Your task to perform on an android device: turn off sleep mode Image 0: 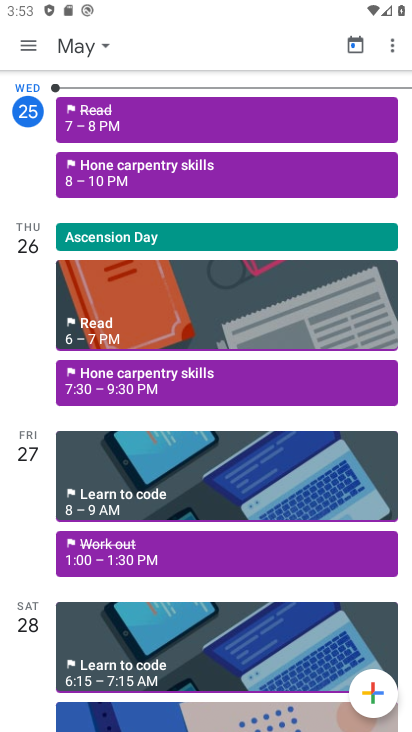
Step 0: drag from (161, 273) to (150, 196)
Your task to perform on an android device: turn off sleep mode Image 1: 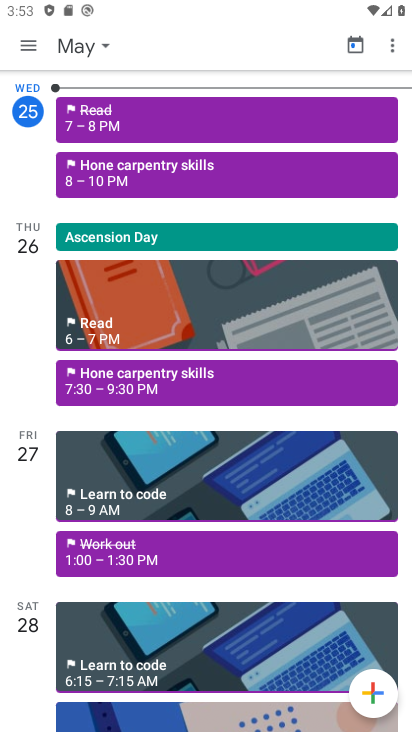
Step 1: press back button
Your task to perform on an android device: turn off sleep mode Image 2: 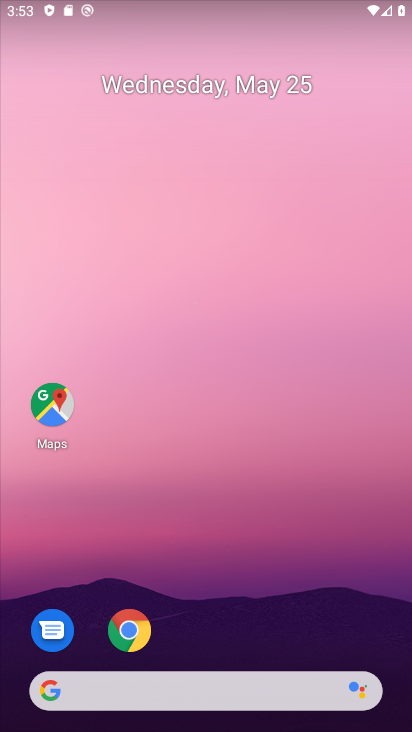
Step 2: drag from (262, 623) to (183, 114)
Your task to perform on an android device: turn off sleep mode Image 3: 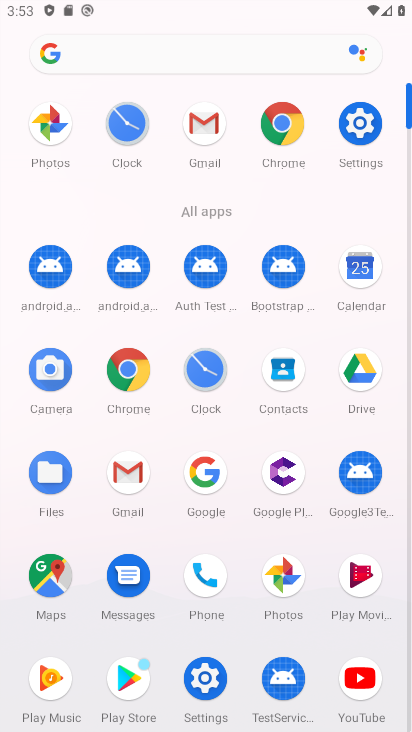
Step 3: click (193, 678)
Your task to perform on an android device: turn off sleep mode Image 4: 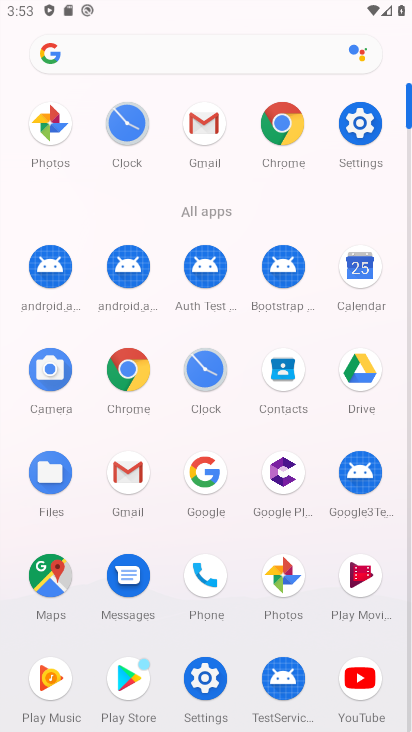
Step 4: click (193, 678)
Your task to perform on an android device: turn off sleep mode Image 5: 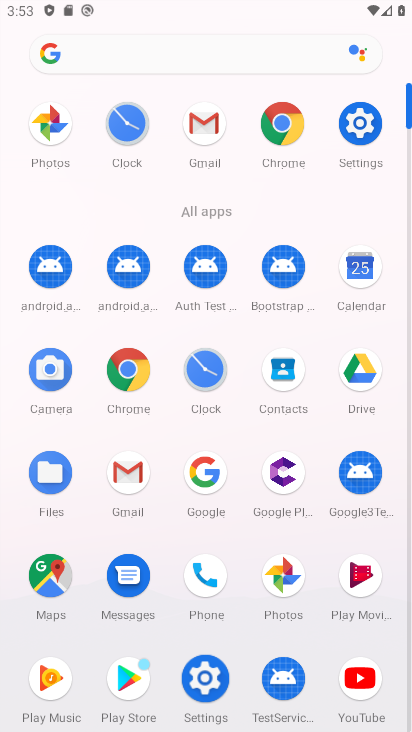
Step 5: click (194, 679)
Your task to perform on an android device: turn off sleep mode Image 6: 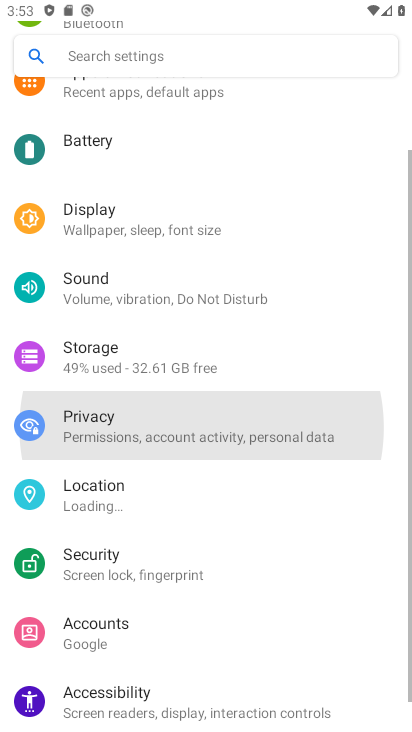
Step 6: click (202, 681)
Your task to perform on an android device: turn off sleep mode Image 7: 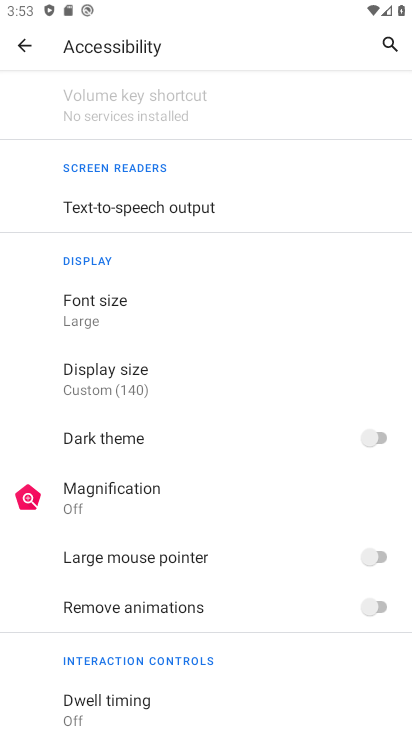
Step 7: click (24, 33)
Your task to perform on an android device: turn off sleep mode Image 8: 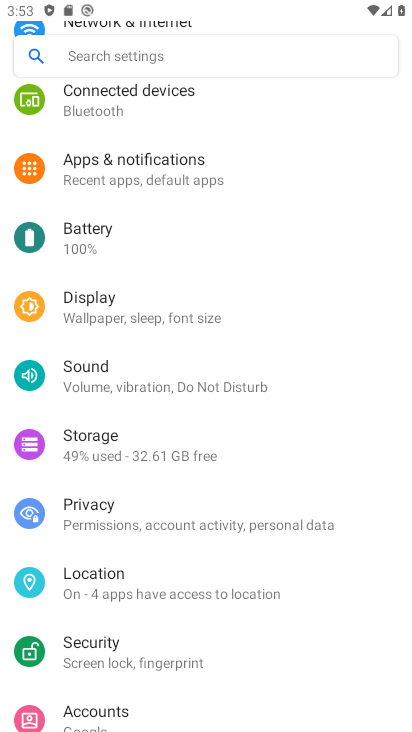
Step 8: click (89, 308)
Your task to perform on an android device: turn off sleep mode Image 9: 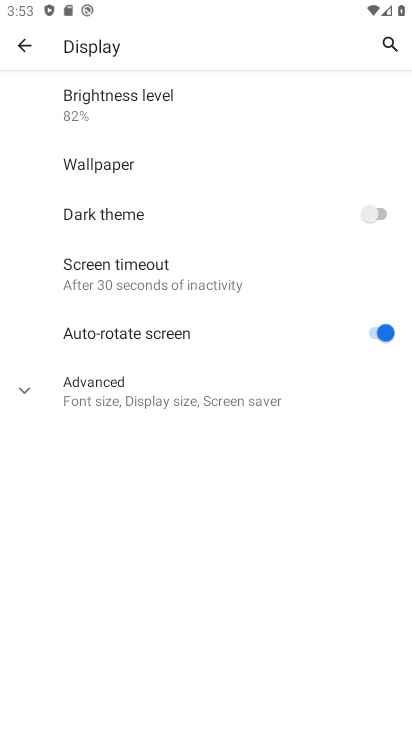
Step 9: task complete